Your task to perform on an android device: Open network settings Image 0: 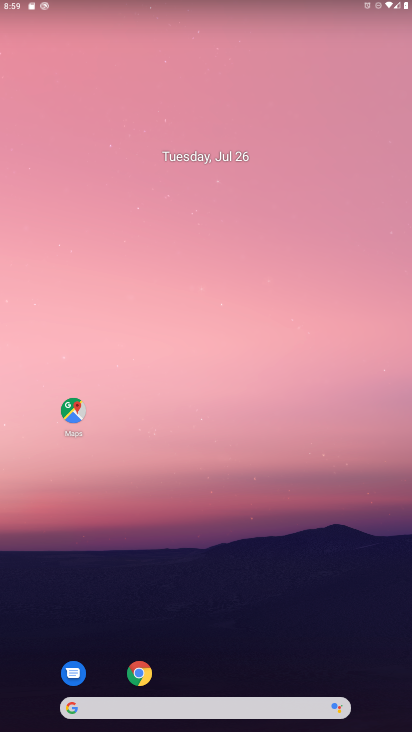
Step 0: drag from (362, 654) to (22, 18)
Your task to perform on an android device: Open network settings Image 1: 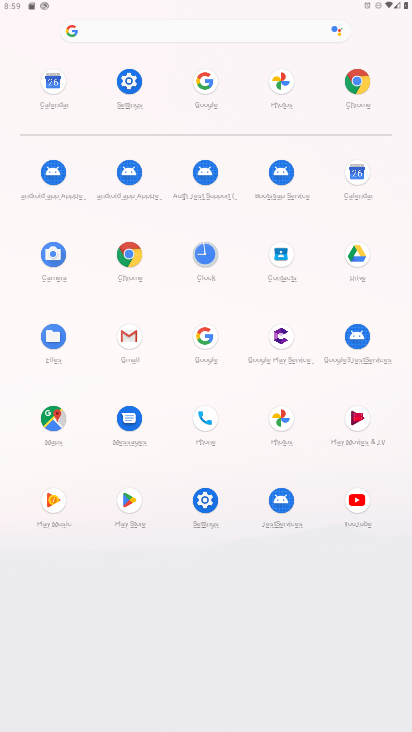
Step 1: click (117, 84)
Your task to perform on an android device: Open network settings Image 2: 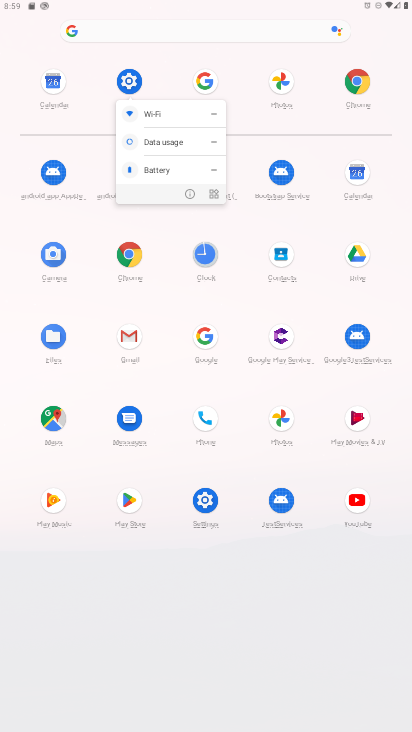
Step 2: click (117, 84)
Your task to perform on an android device: Open network settings Image 3: 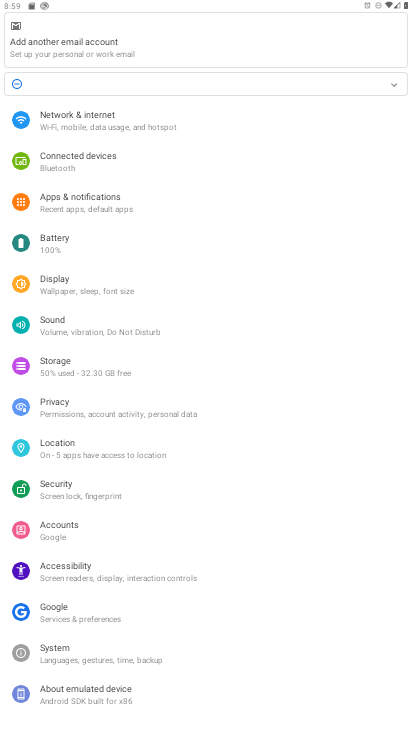
Step 3: click (87, 119)
Your task to perform on an android device: Open network settings Image 4: 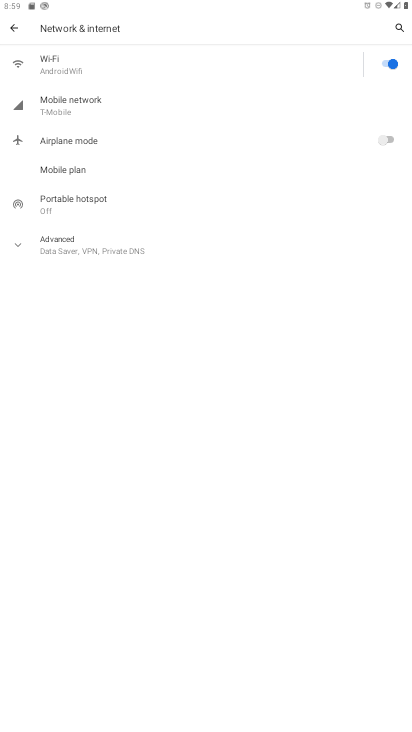
Step 4: task complete